Your task to perform on an android device: Open Wikipedia Image 0: 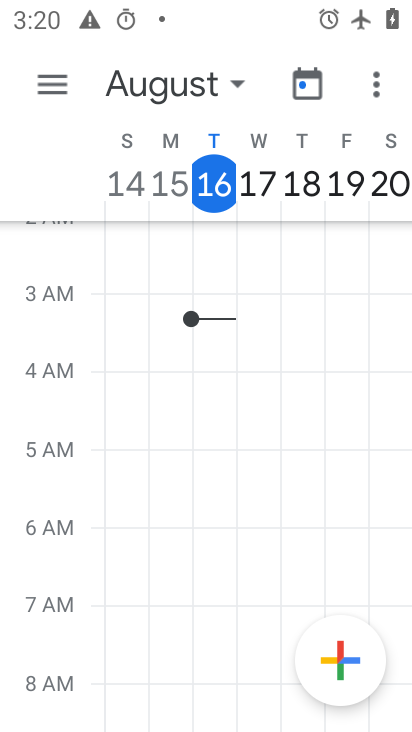
Step 0: press home button
Your task to perform on an android device: Open Wikipedia Image 1: 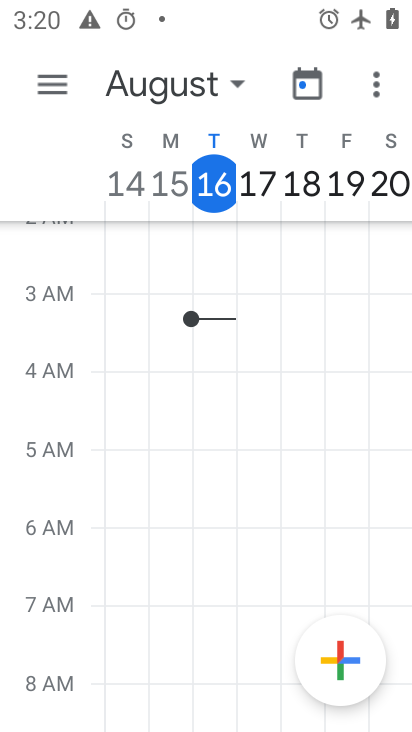
Step 1: press home button
Your task to perform on an android device: Open Wikipedia Image 2: 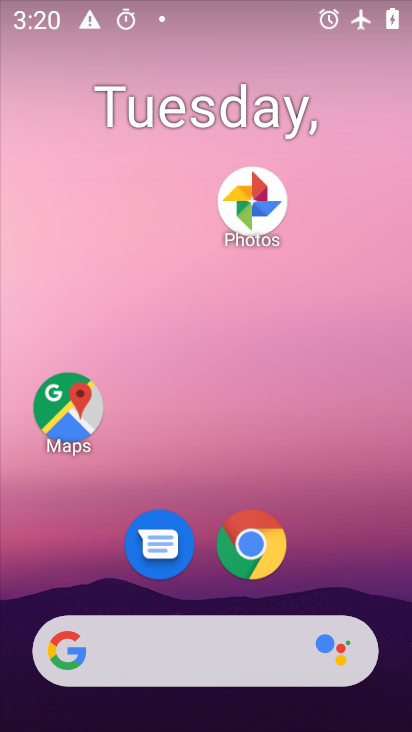
Step 2: drag from (348, 540) to (280, 15)
Your task to perform on an android device: Open Wikipedia Image 3: 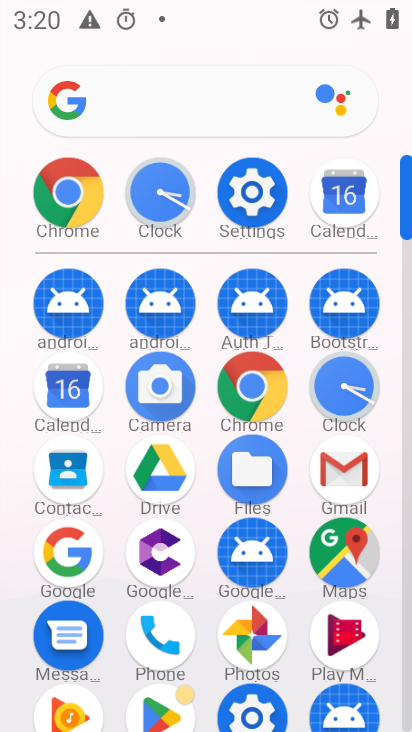
Step 3: click (255, 381)
Your task to perform on an android device: Open Wikipedia Image 4: 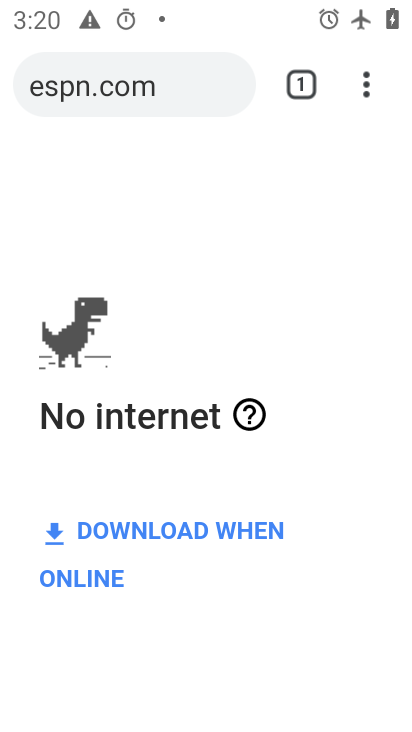
Step 4: click (178, 79)
Your task to perform on an android device: Open Wikipedia Image 5: 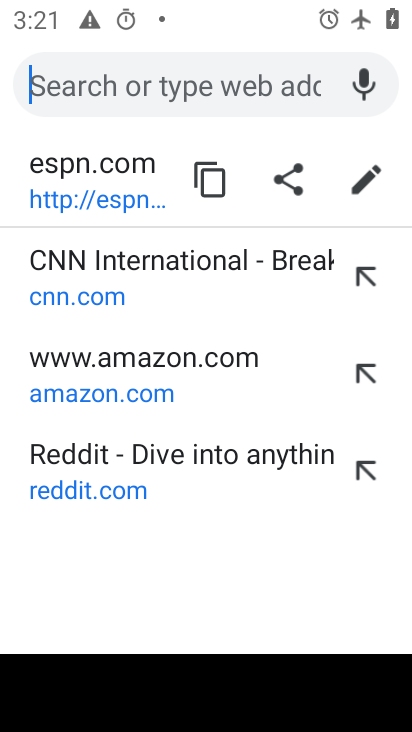
Step 5: type "wikipedia"
Your task to perform on an android device: Open Wikipedia Image 6: 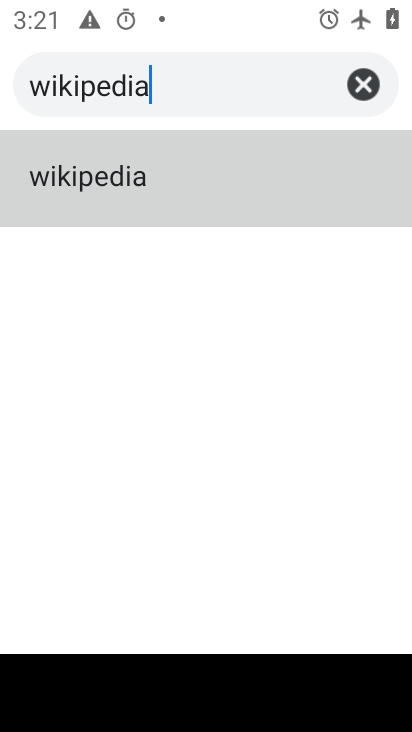
Step 6: click (88, 182)
Your task to perform on an android device: Open Wikipedia Image 7: 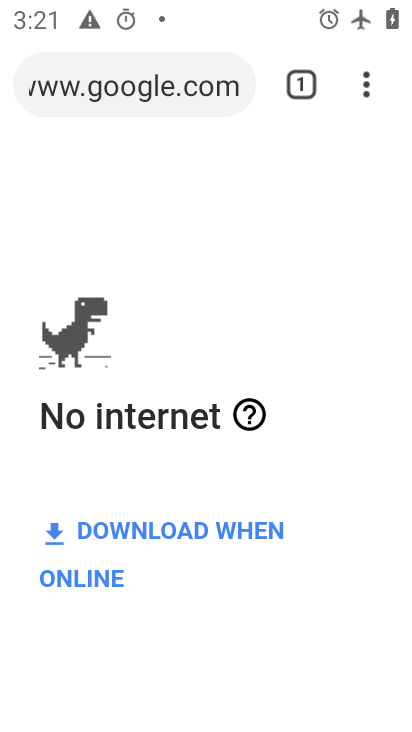
Step 7: task complete